Your task to perform on an android device: Open display settings Image 0: 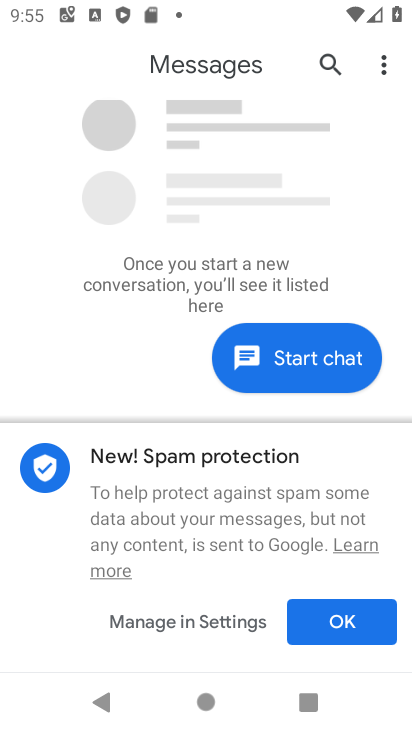
Step 0: press home button
Your task to perform on an android device: Open display settings Image 1: 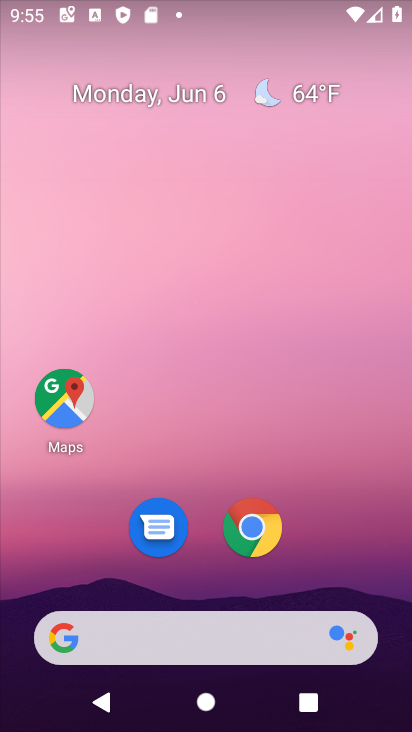
Step 1: drag from (259, 446) to (291, 71)
Your task to perform on an android device: Open display settings Image 2: 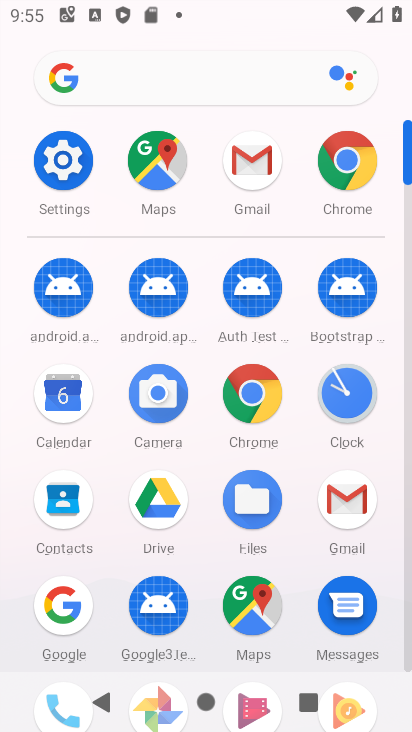
Step 2: click (73, 178)
Your task to perform on an android device: Open display settings Image 3: 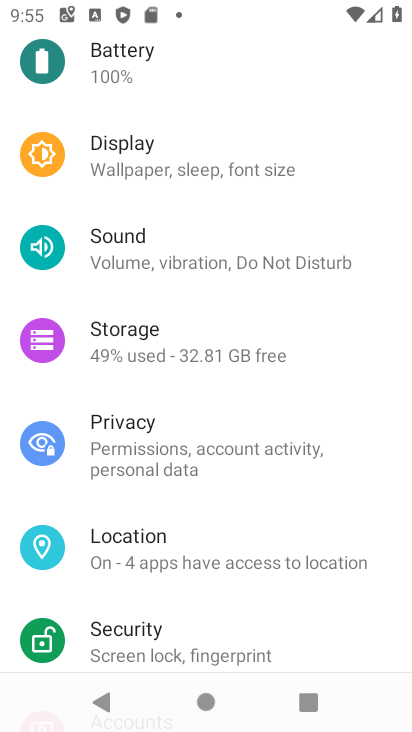
Step 3: click (157, 177)
Your task to perform on an android device: Open display settings Image 4: 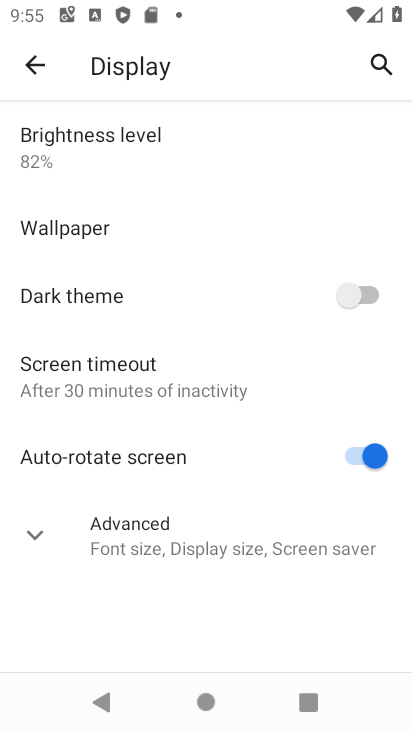
Step 4: task complete